Your task to perform on an android device: check android version Image 0: 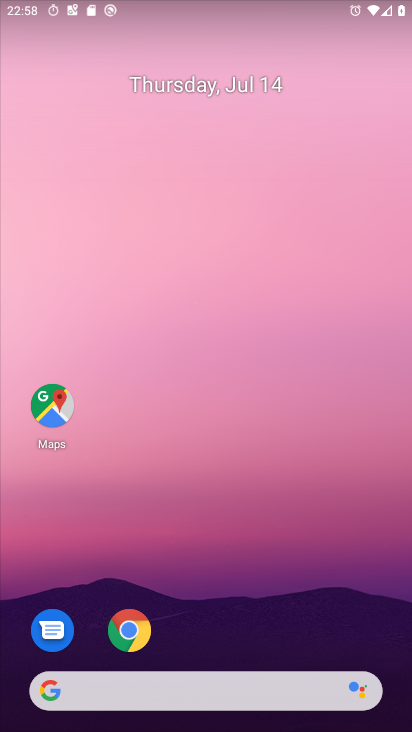
Step 0: drag from (221, 622) to (246, 102)
Your task to perform on an android device: check android version Image 1: 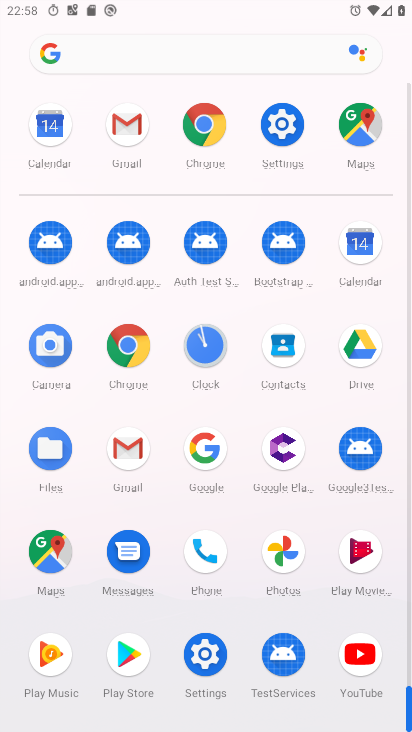
Step 1: click (197, 657)
Your task to perform on an android device: check android version Image 2: 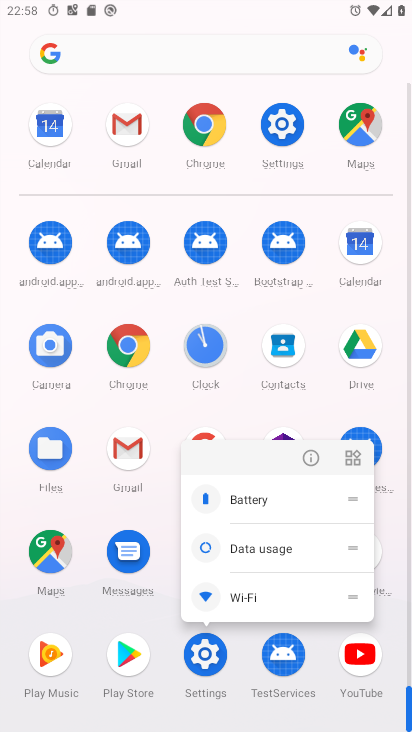
Step 2: click (319, 452)
Your task to perform on an android device: check android version Image 3: 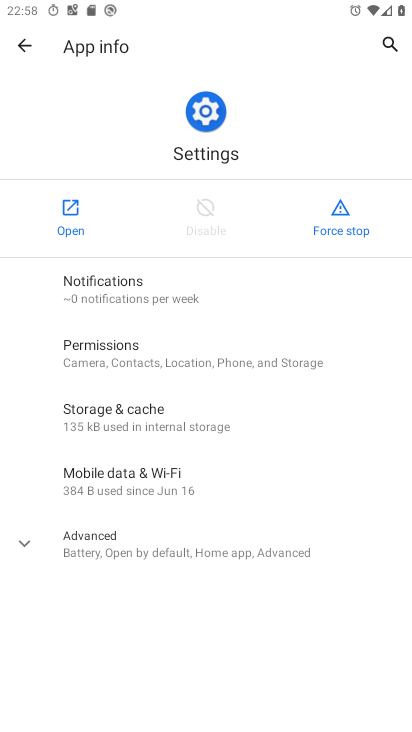
Step 3: click (83, 219)
Your task to perform on an android device: check android version Image 4: 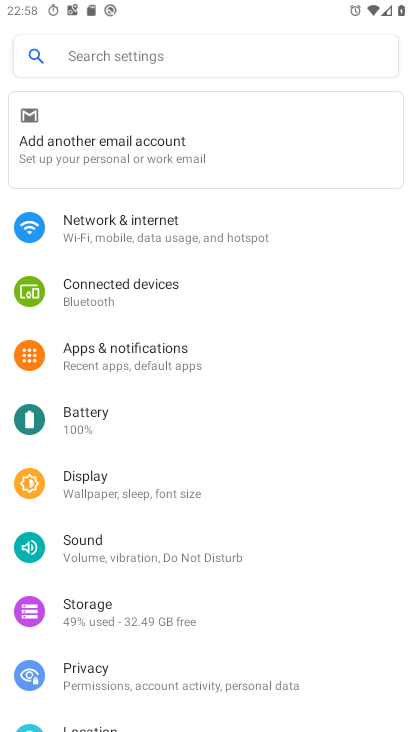
Step 4: click (229, 67)
Your task to perform on an android device: check android version Image 5: 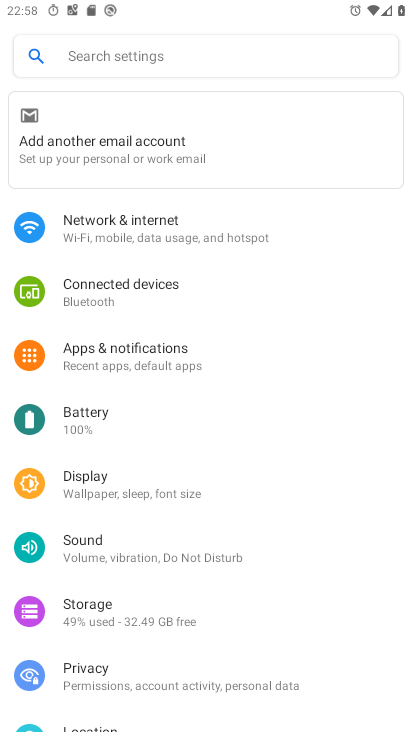
Step 5: drag from (128, 688) to (228, 115)
Your task to perform on an android device: check android version Image 6: 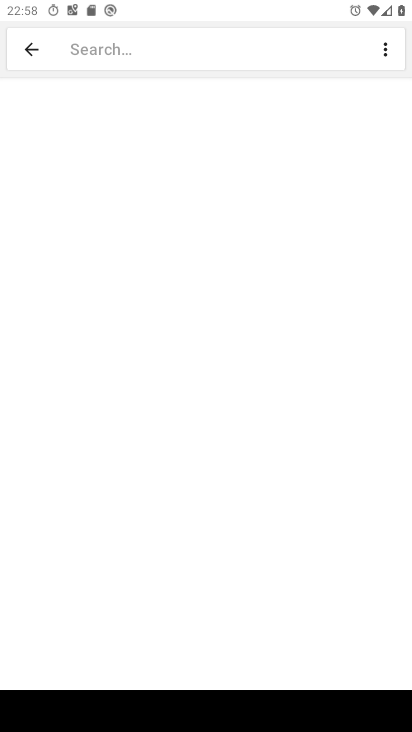
Step 6: click (12, 48)
Your task to perform on an android device: check android version Image 7: 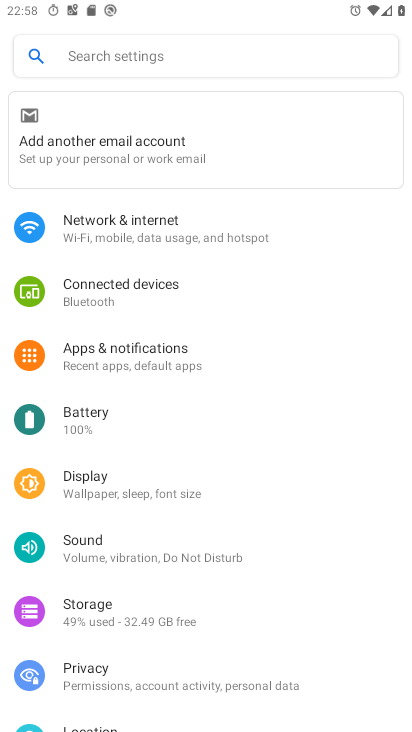
Step 7: drag from (116, 700) to (229, 58)
Your task to perform on an android device: check android version Image 8: 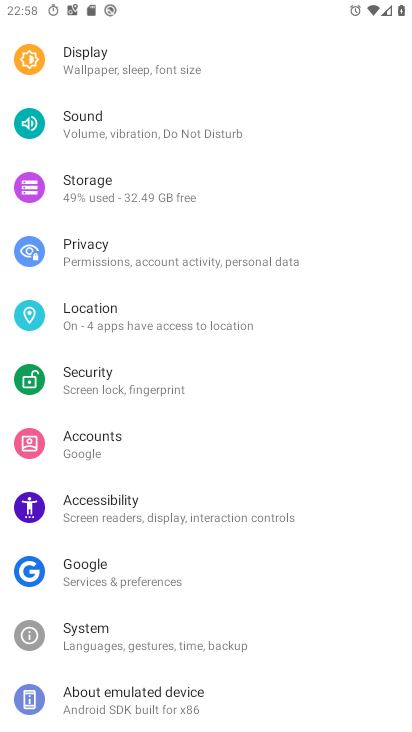
Step 8: click (104, 688)
Your task to perform on an android device: check android version Image 9: 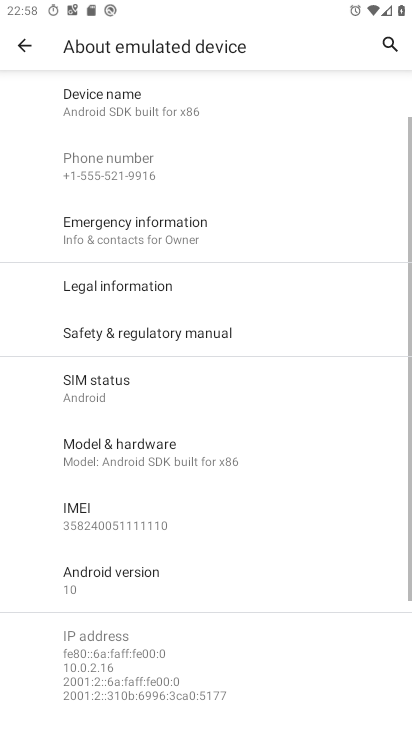
Step 9: drag from (164, 530) to (220, 96)
Your task to perform on an android device: check android version Image 10: 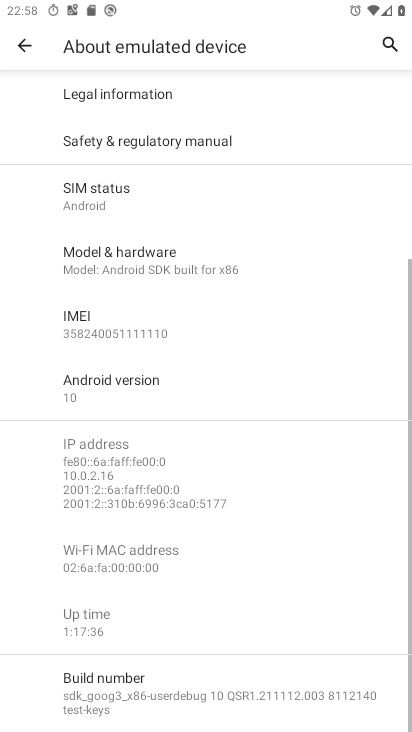
Step 10: click (137, 385)
Your task to perform on an android device: check android version Image 11: 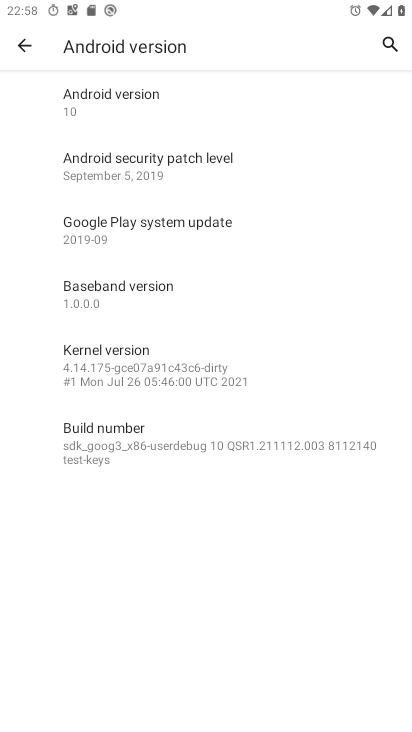
Step 11: task complete